Your task to perform on an android device: find snoozed emails in the gmail app Image 0: 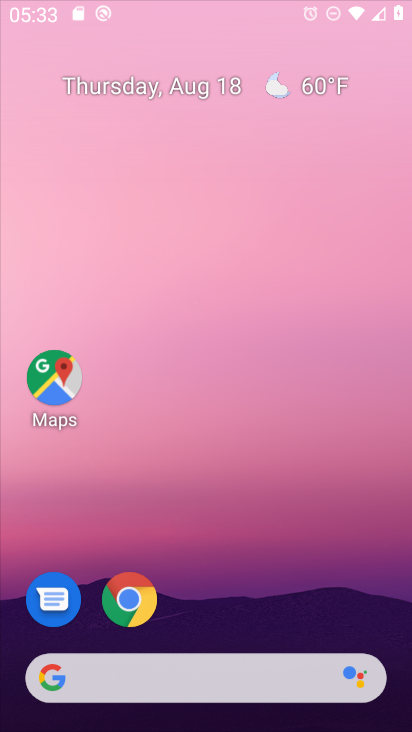
Step 0: press home button
Your task to perform on an android device: find snoozed emails in the gmail app Image 1: 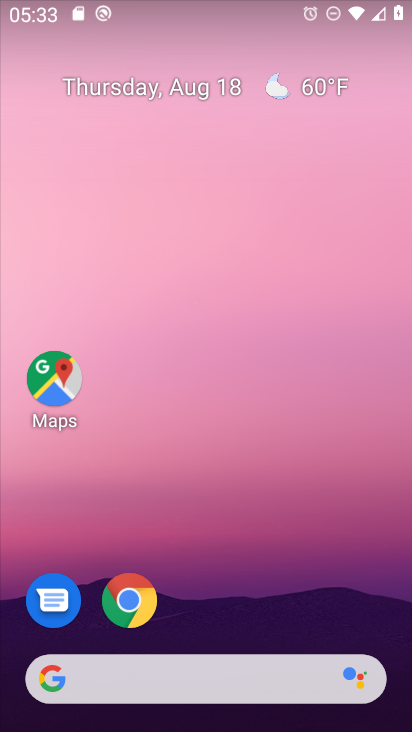
Step 1: drag from (253, 622) to (310, 97)
Your task to perform on an android device: find snoozed emails in the gmail app Image 2: 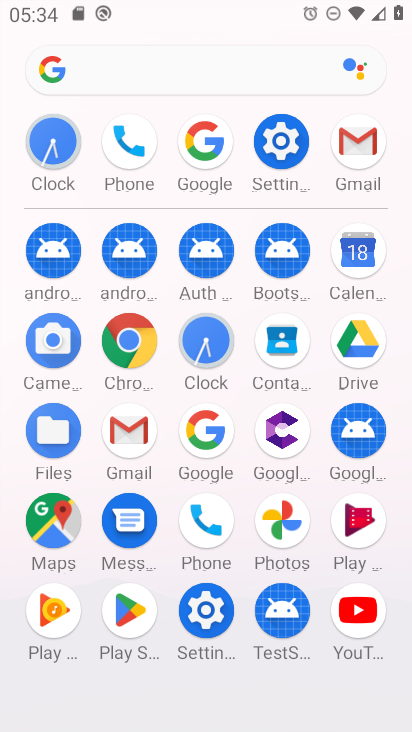
Step 2: click (344, 148)
Your task to perform on an android device: find snoozed emails in the gmail app Image 3: 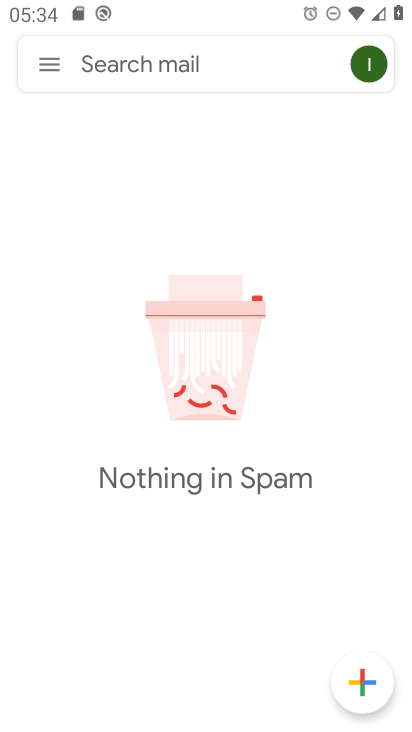
Step 3: click (45, 66)
Your task to perform on an android device: find snoozed emails in the gmail app Image 4: 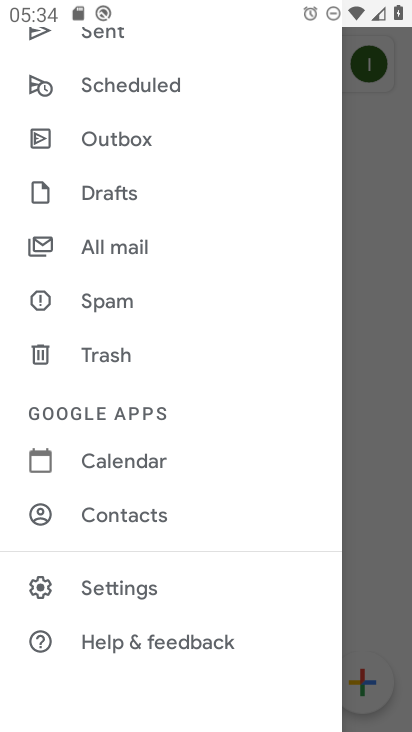
Step 4: drag from (219, 297) to (229, 720)
Your task to perform on an android device: find snoozed emails in the gmail app Image 5: 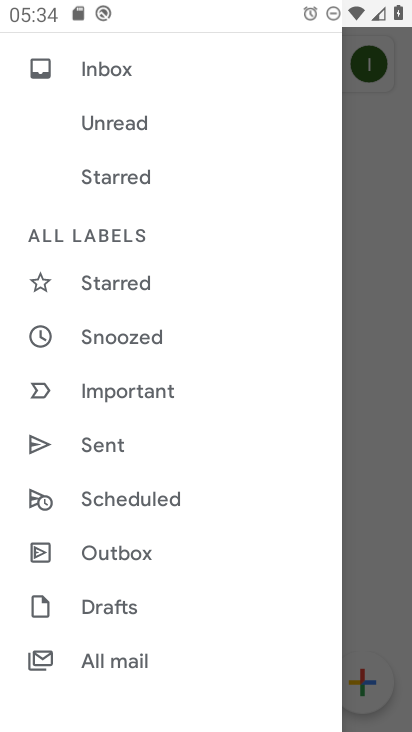
Step 5: click (129, 338)
Your task to perform on an android device: find snoozed emails in the gmail app Image 6: 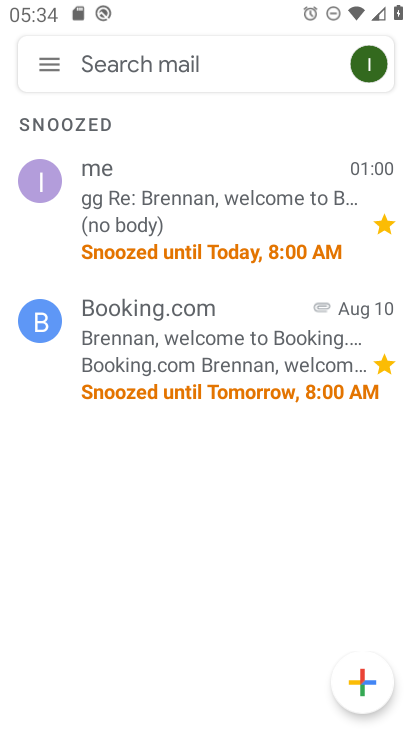
Step 6: task complete